Your task to perform on an android device: show emergency info Image 0: 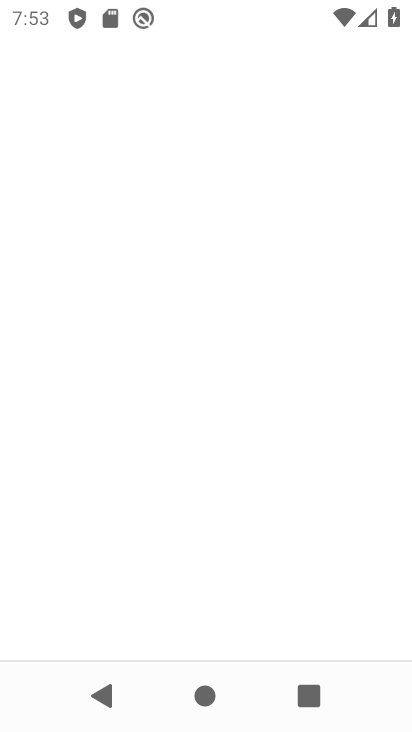
Step 0: drag from (345, 502) to (257, 132)
Your task to perform on an android device: show emergency info Image 1: 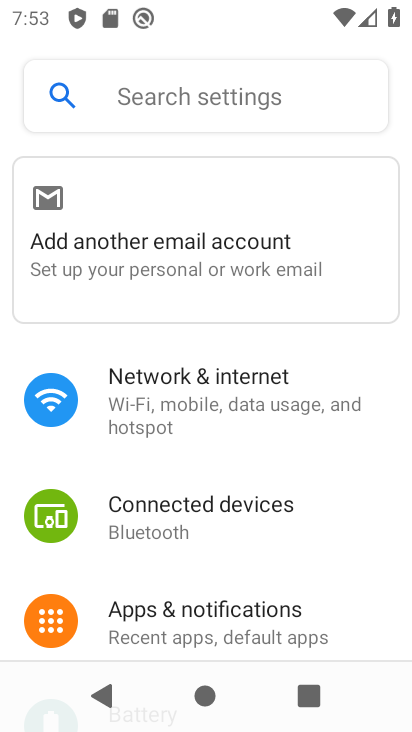
Step 1: press home button
Your task to perform on an android device: show emergency info Image 2: 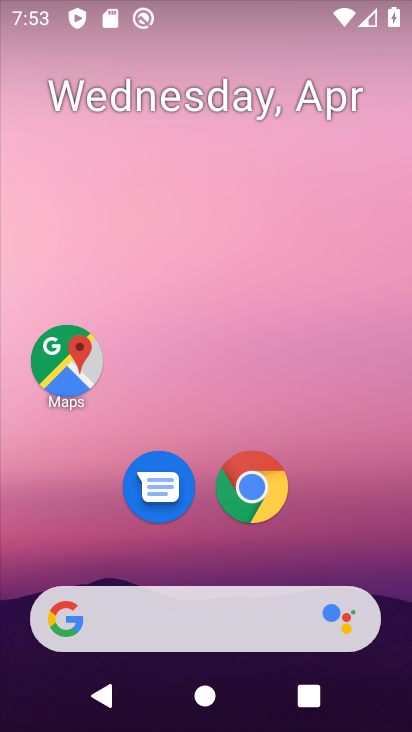
Step 2: drag from (335, 580) to (297, 159)
Your task to perform on an android device: show emergency info Image 3: 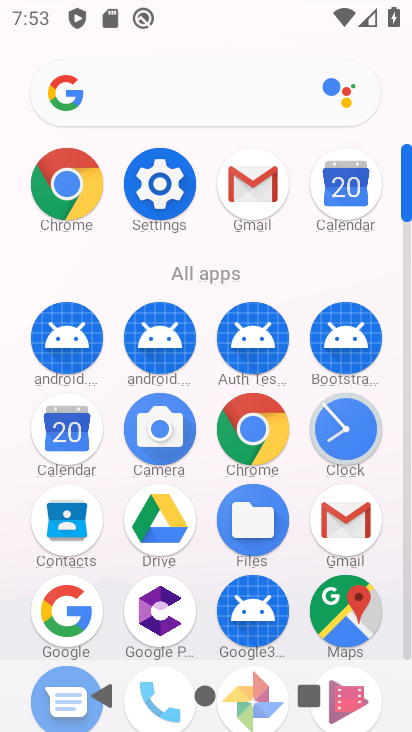
Step 3: click (157, 198)
Your task to perform on an android device: show emergency info Image 4: 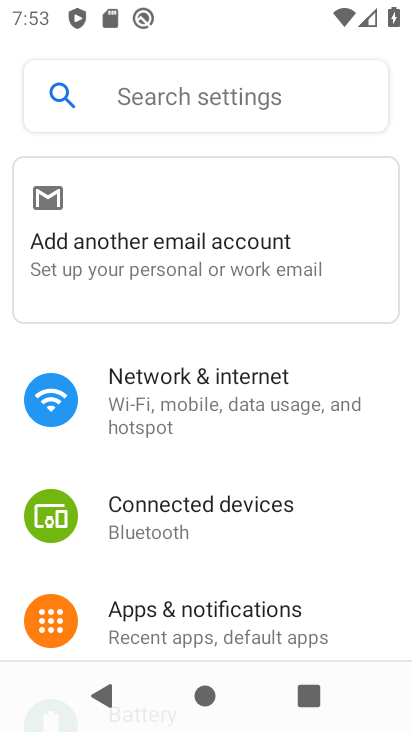
Step 4: drag from (205, 545) to (256, 85)
Your task to perform on an android device: show emergency info Image 5: 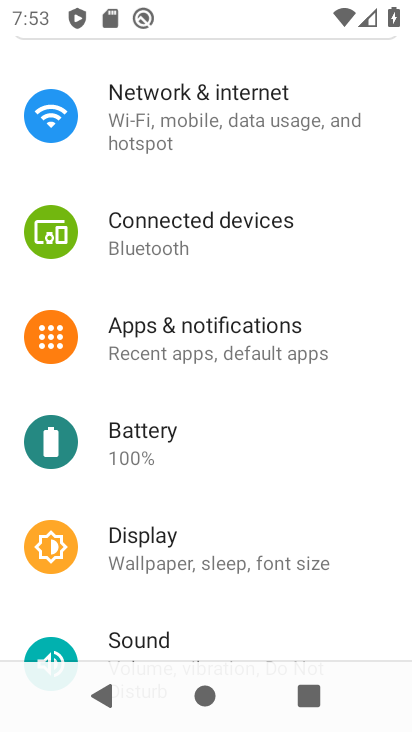
Step 5: drag from (207, 611) to (260, 133)
Your task to perform on an android device: show emergency info Image 6: 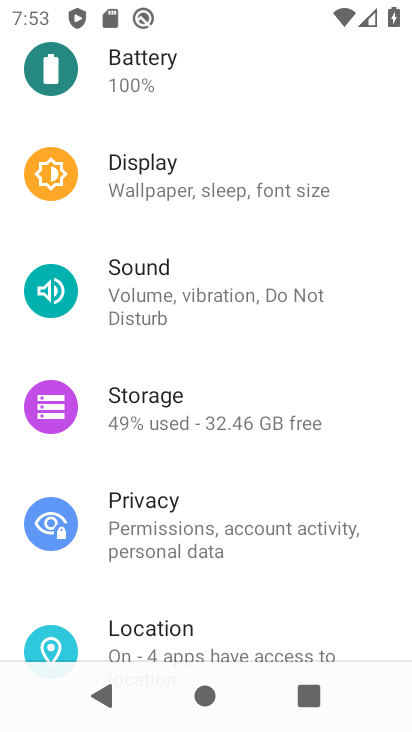
Step 6: drag from (247, 575) to (260, 127)
Your task to perform on an android device: show emergency info Image 7: 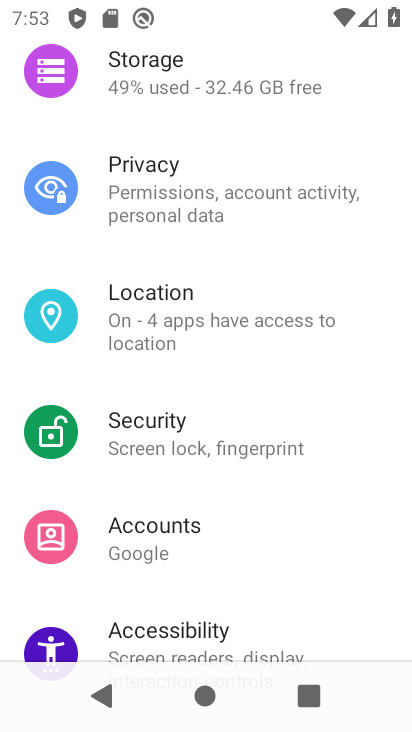
Step 7: drag from (212, 581) to (258, 93)
Your task to perform on an android device: show emergency info Image 8: 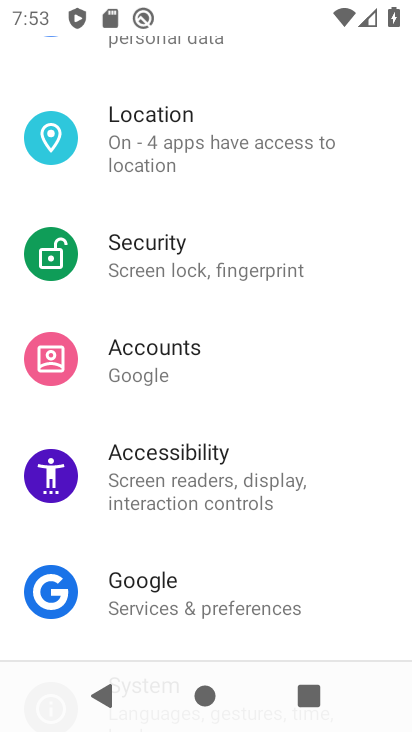
Step 8: drag from (252, 528) to (271, 181)
Your task to perform on an android device: show emergency info Image 9: 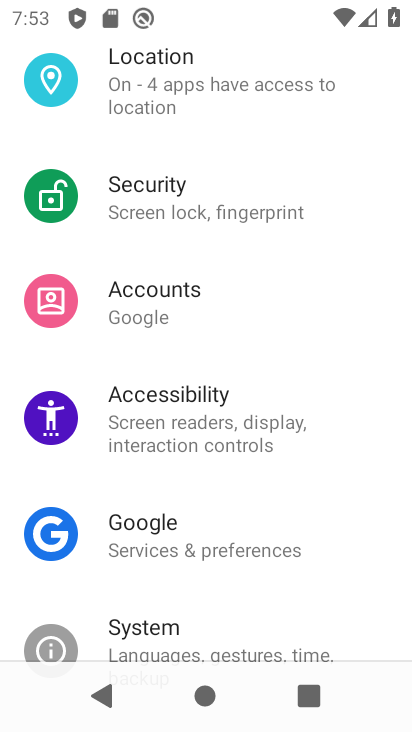
Step 9: drag from (187, 539) to (218, 303)
Your task to perform on an android device: show emergency info Image 10: 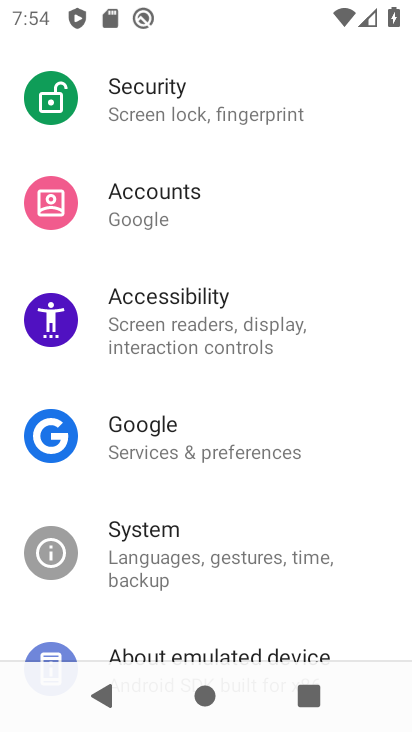
Step 10: click (163, 654)
Your task to perform on an android device: show emergency info Image 11: 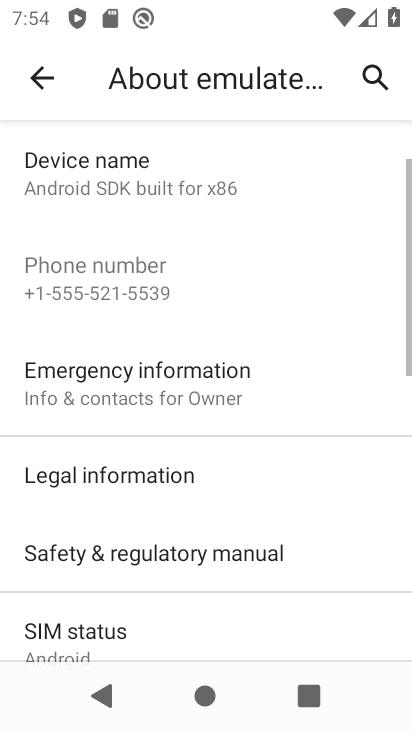
Step 11: click (229, 380)
Your task to perform on an android device: show emergency info Image 12: 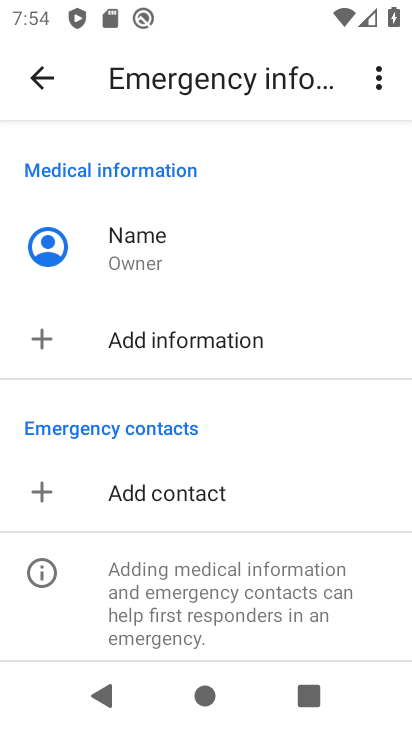
Step 12: task complete